Your task to perform on an android device: When is my next appointment? Image 0: 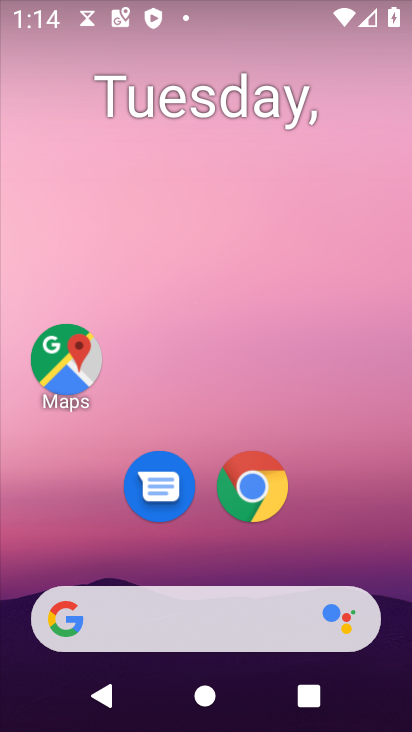
Step 0: drag from (378, 563) to (280, 250)
Your task to perform on an android device: When is my next appointment? Image 1: 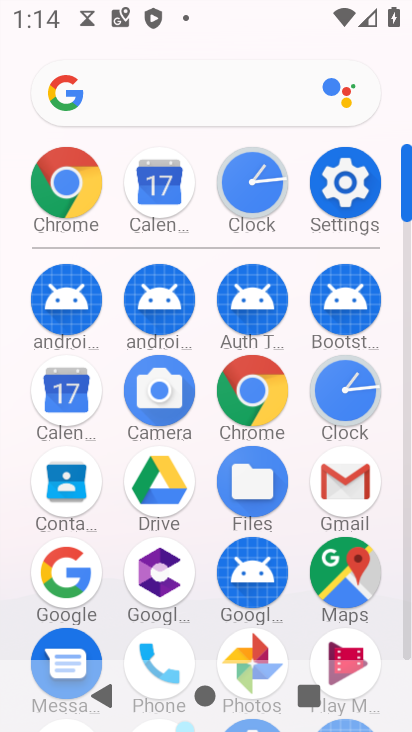
Step 1: click (140, 189)
Your task to perform on an android device: When is my next appointment? Image 2: 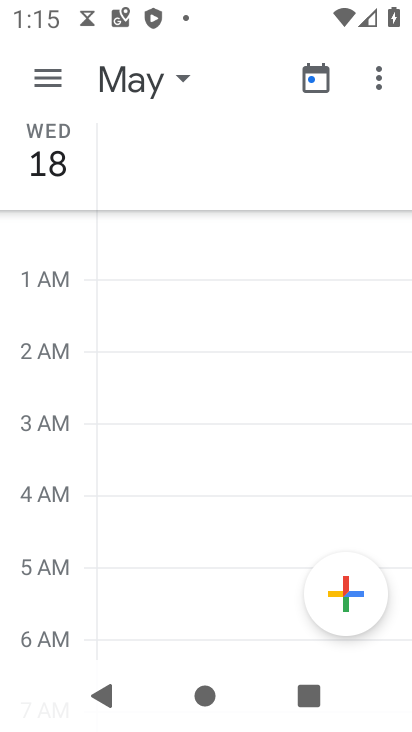
Step 2: click (61, 85)
Your task to perform on an android device: When is my next appointment? Image 3: 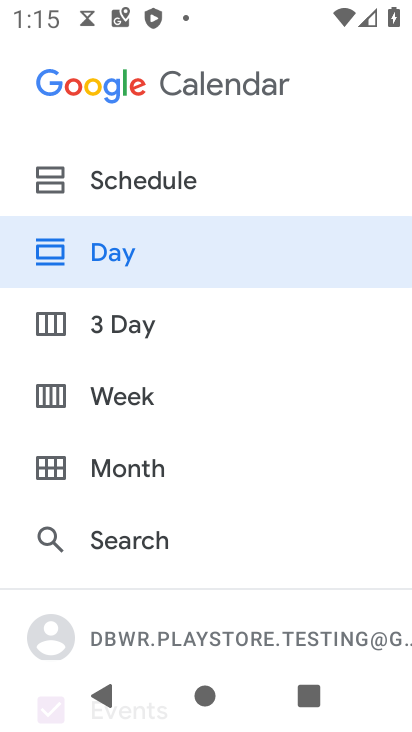
Step 3: click (122, 181)
Your task to perform on an android device: When is my next appointment? Image 4: 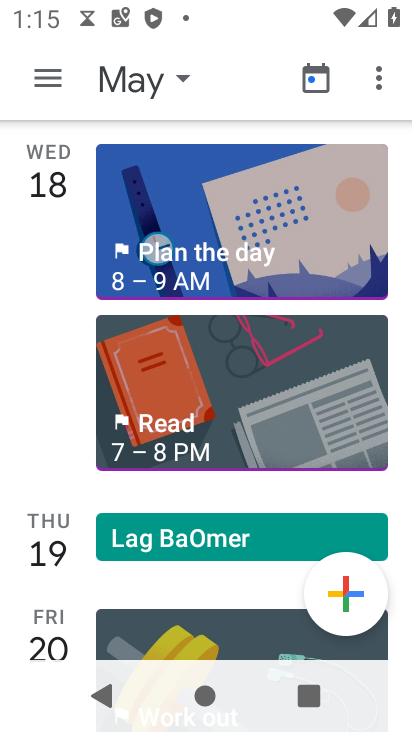
Step 4: click (157, 69)
Your task to perform on an android device: When is my next appointment? Image 5: 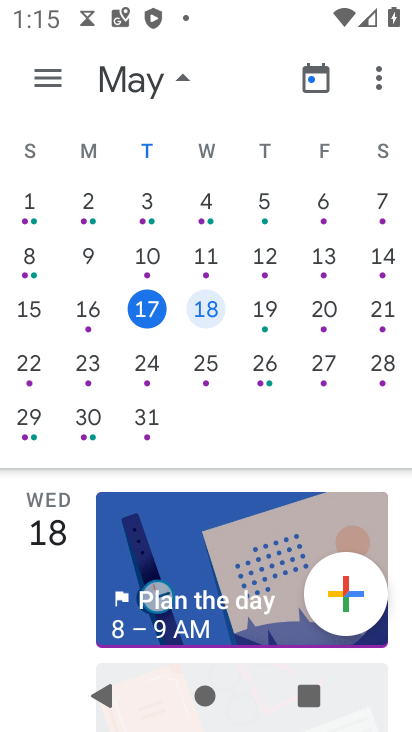
Step 5: click (149, 311)
Your task to perform on an android device: When is my next appointment? Image 6: 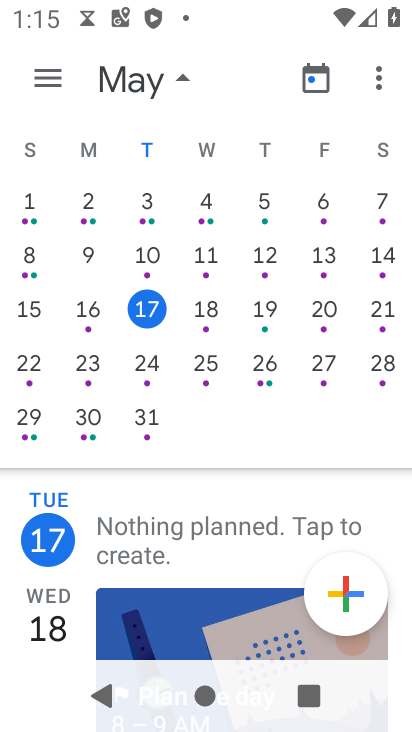
Step 6: click (136, 73)
Your task to perform on an android device: When is my next appointment? Image 7: 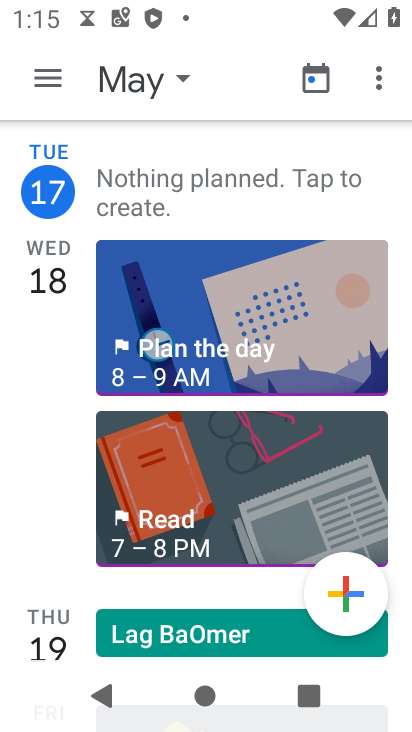
Step 7: task complete